Your task to perform on an android device: find snoozed emails in the gmail app Image 0: 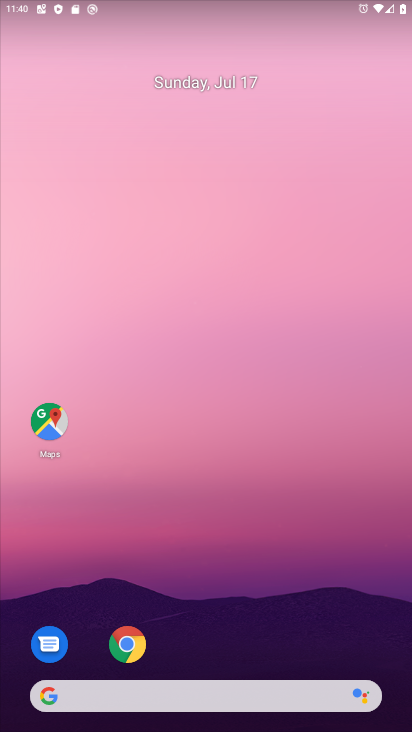
Step 0: drag from (223, 510) to (277, 0)
Your task to perform on an android device: find snoozed emails in the gmail app Image 1: 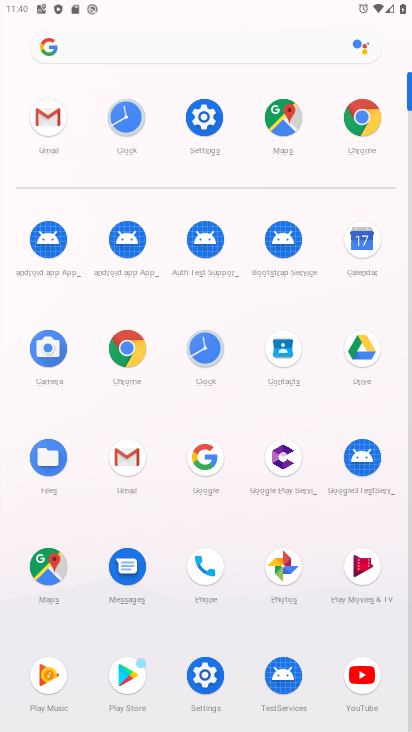
Step 1: click (45, 115)
Your task to perform on an android device: find snoozed emails in the gmail app Image 2: 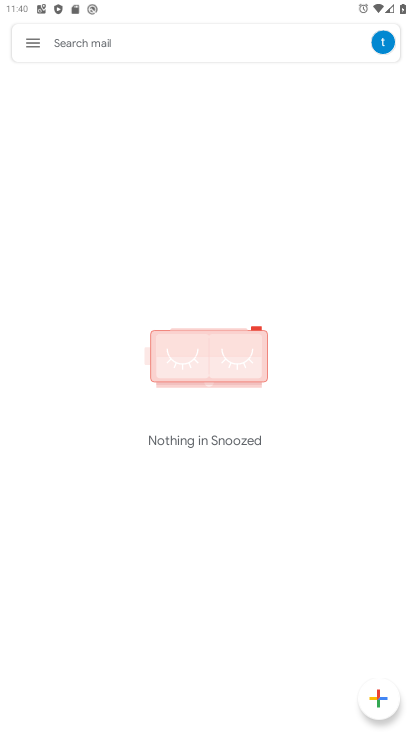
Step 2: click (36, 42)
Your task to perform on an android device: find snoozed emails in the gmail app Image 3: 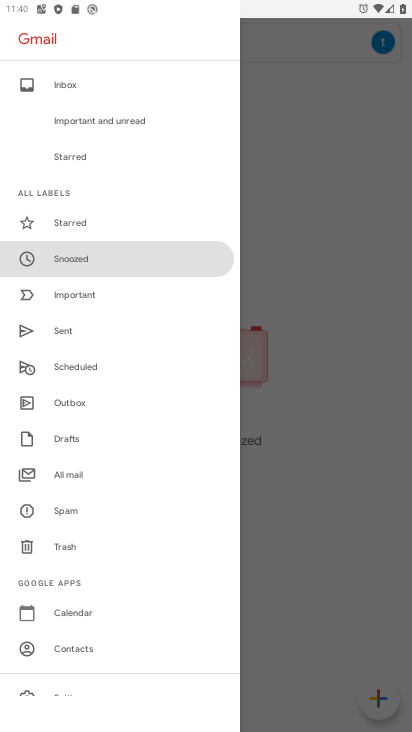
Step 3: click (96, 264)
Your task to perform on an android device: find snoozed emails in the gmail app Image 4: 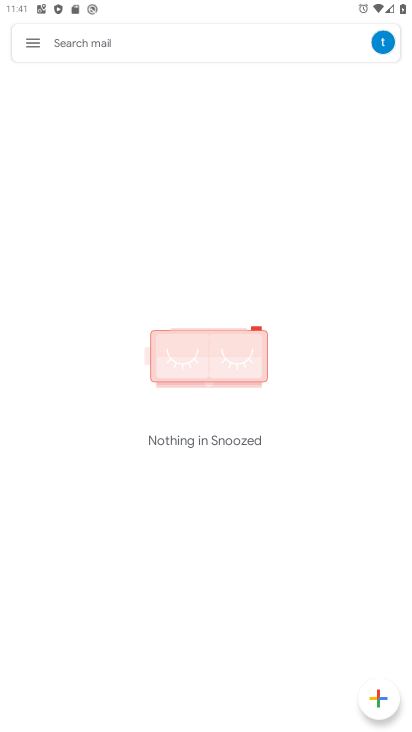
Step 4: task complete